Your task to perform on an android device: Open settings on Google Maps Image 0: 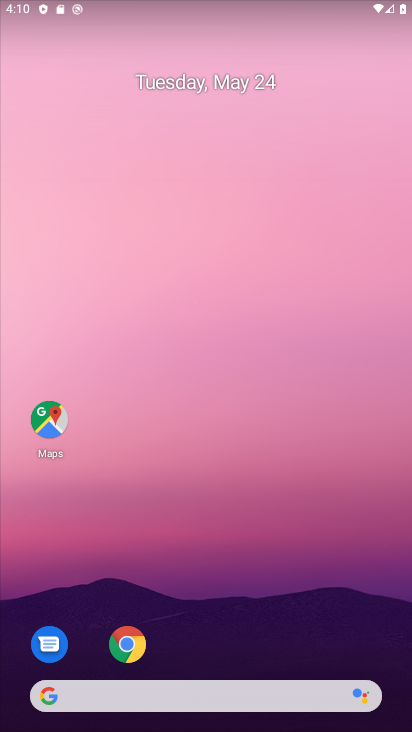
Step 0: drag from (221, 619) to (137, 0)
Your task to perform on an android device: Open settings on Google Maps Image 1: 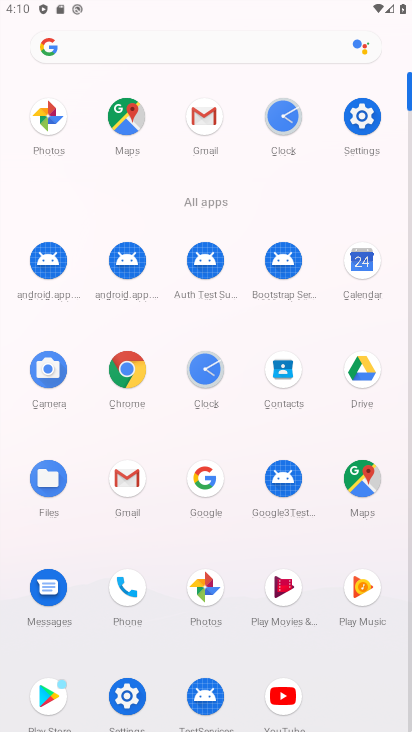
Step 1: click (359, 493)
Your task to perform on an android device: Open settings on Google Maps Image 2: 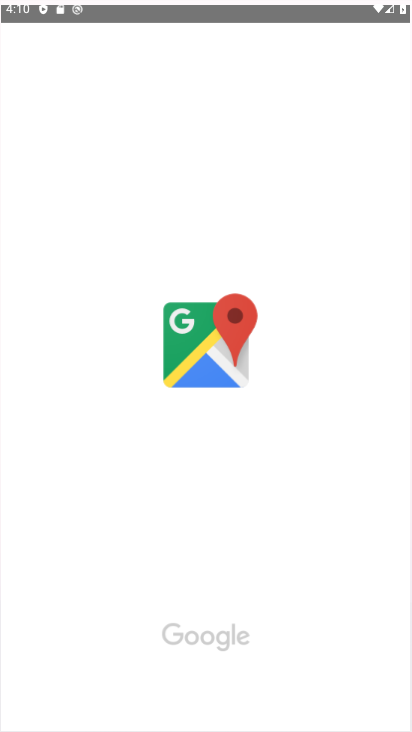
Step 2: click (359, 490)
Your task to perform on an android device: Open settings on Google Maps Image 3: 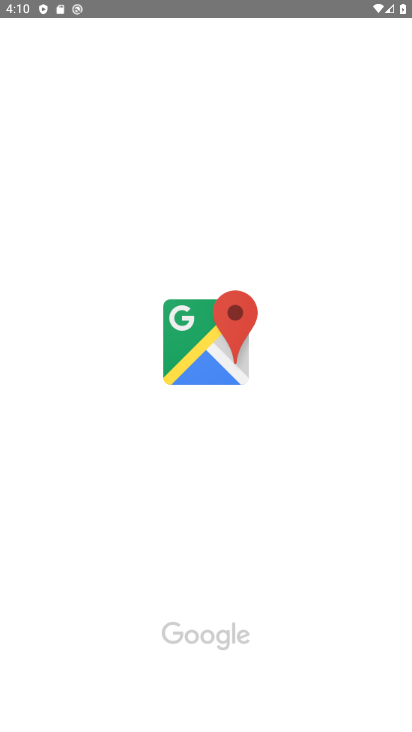
Step 3: click (359, 490)
Your task to perform on an android device: Open settings on Google Maps Image 4: 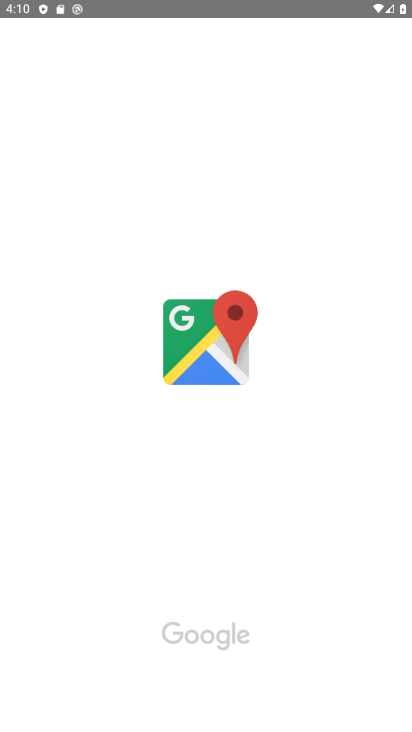
Step 4: click (362, 489)
Your task to perform on an android device: Open settings on Google Maps Image 5: 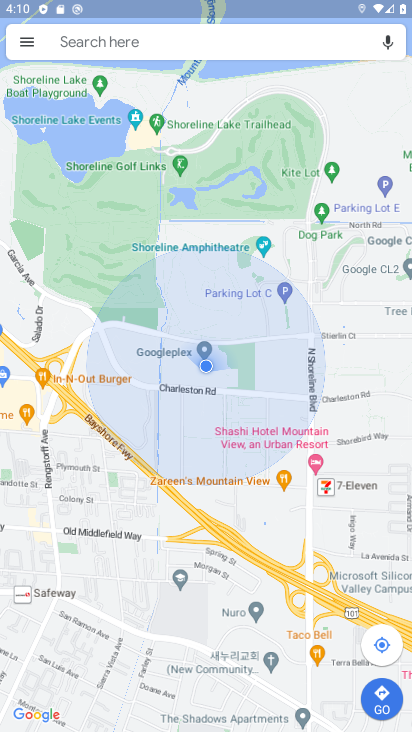
Step 5: click (27, 45)
Your task to perform on an android device: Open settings on Google Maps Image 6: 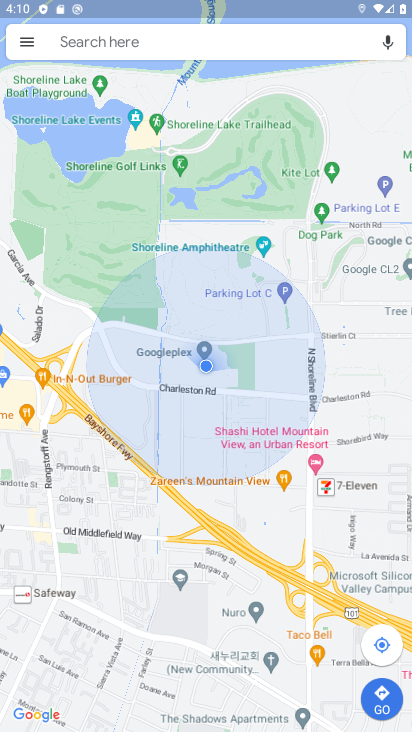
Step 6: click (29, 43)
Your task to perform on an android device: Open settings on Google Maps Image 7: 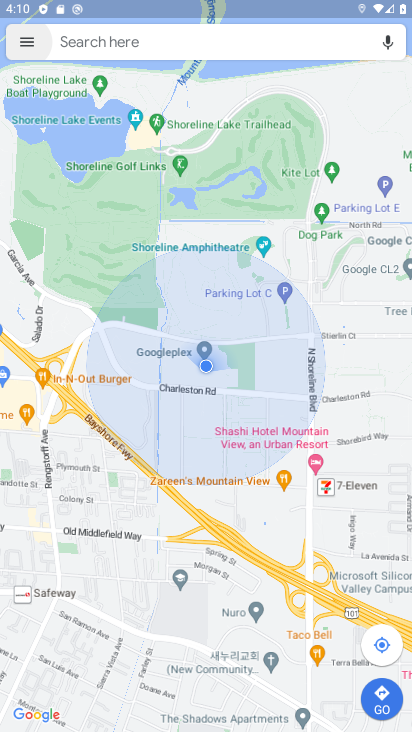
Step 7: click (29, 43)
Your task to perform on an android device: Open settings on Google Maps Image 8: 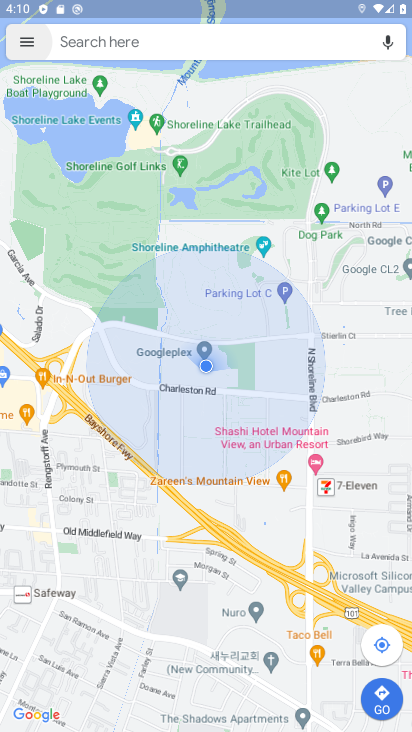
Step 8: click (27, 43)
Your task to perform on an android device: Open settings on Google Maps Image 9: 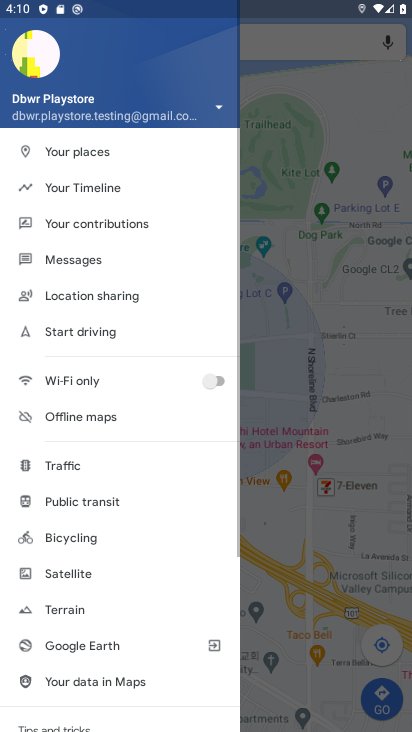
Step 9: click (27, 44)
Your task to perform on an android device: Open settings on Google Maps Image 10: 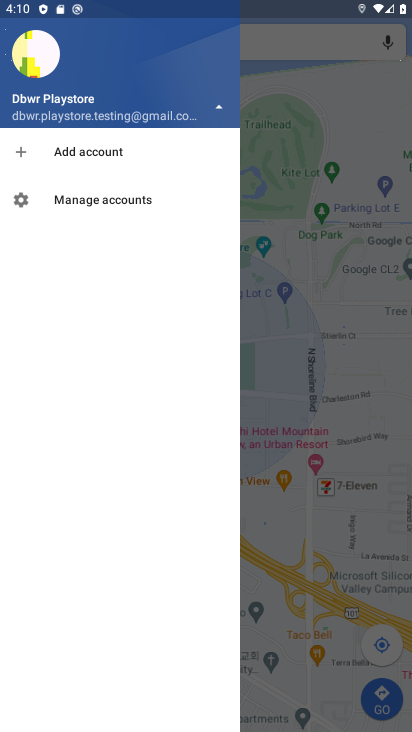
Step 10: click (26, 45)
Your task to perform on an android device: Open settings on Google Maps Image 11: 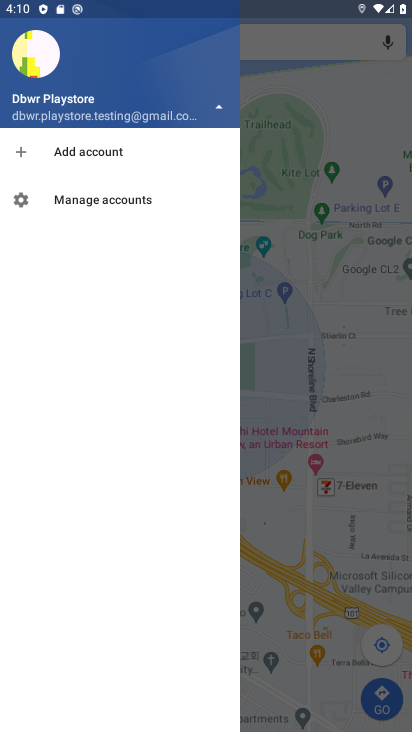
Step 11: click (218, 108)
Your task to perform on an android device: Open settings on Google Maps Image 12: 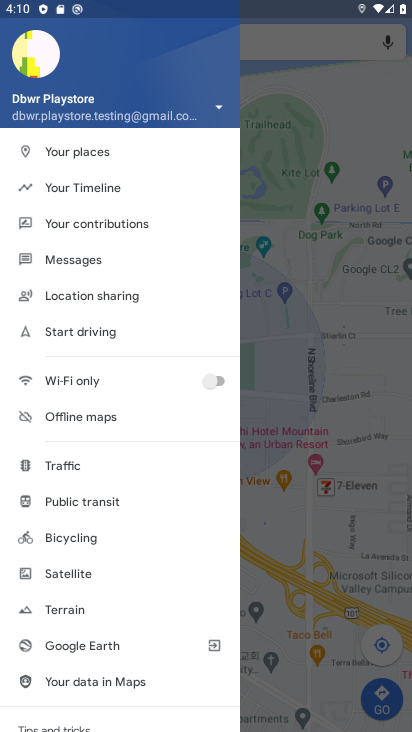
Step 12: click (211, 110)
Your task to perform on an android device: Open settings on Google Maps Image 13: 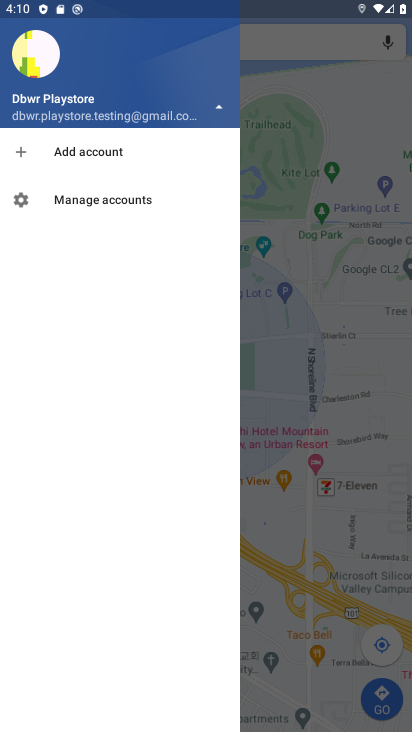
Step 13: click (59, 187)
Your task to perform on an android device: Open settings on Google Maps Image 14: 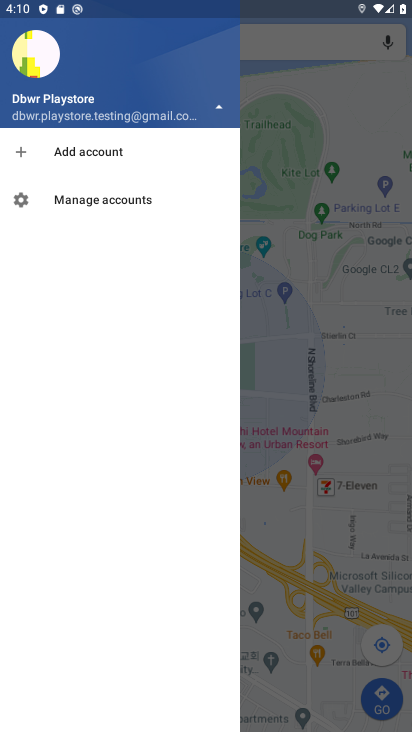
Step 14: click (70, 181)
Your task to perform on an android device: Open settings on Google Maps Image 15: 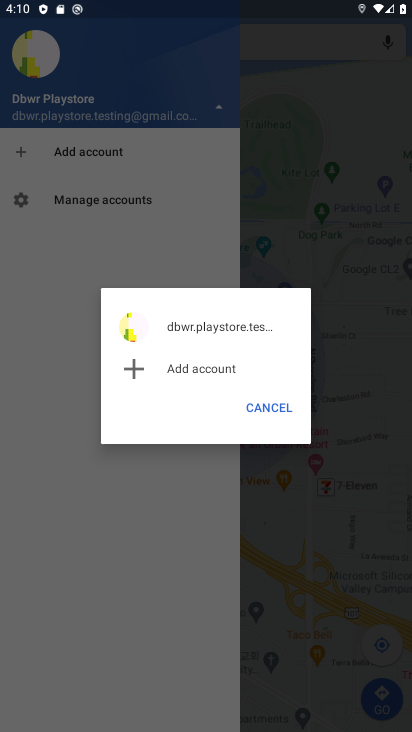
Step 15: click (223, 112)
Your task to perform on an android device: Open settings on Google Maps Image 16: 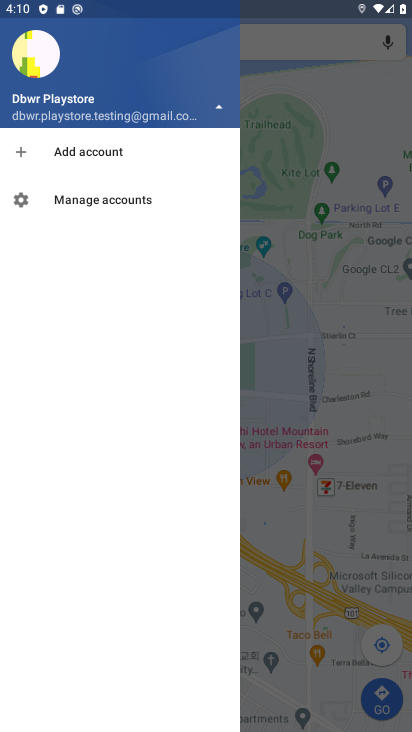
Step 16: click (278, 404)
Your task to perform on an android device: Open settings on Google Maps Image 17: 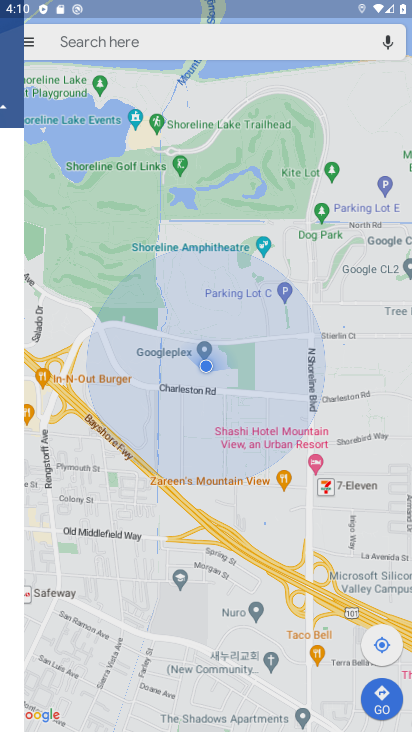
Step 17: click (261, 389)
Your task to perform on an android device: Open settings on Google Maps Image 18: 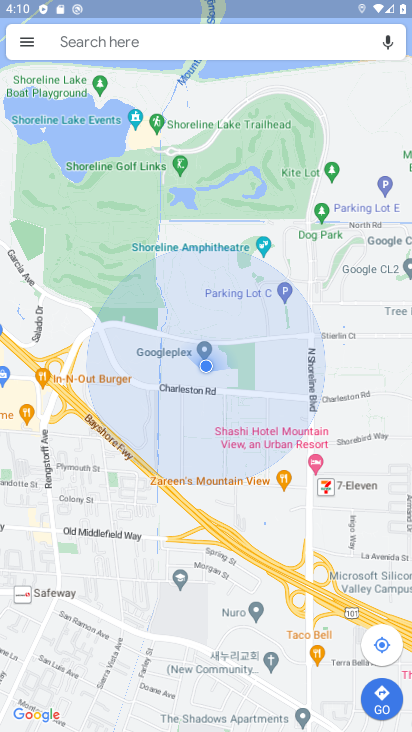
Step 18: click (277, 400)
Your task to perform on an android device: Open settings on Google Maps Image 19: 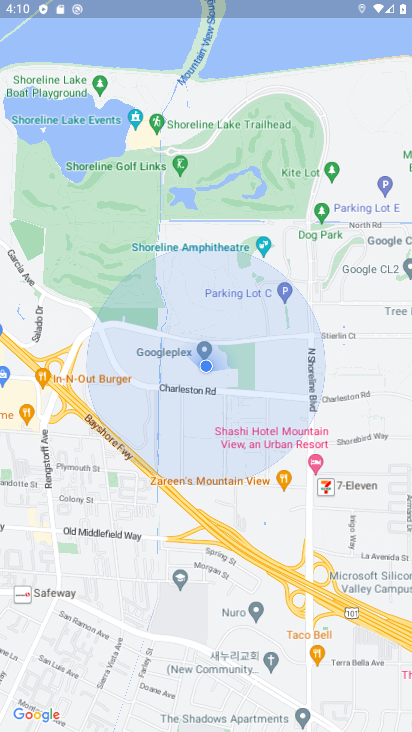
Step 19: task complete